Your task to perform on an android device: Go to Google Image 0: 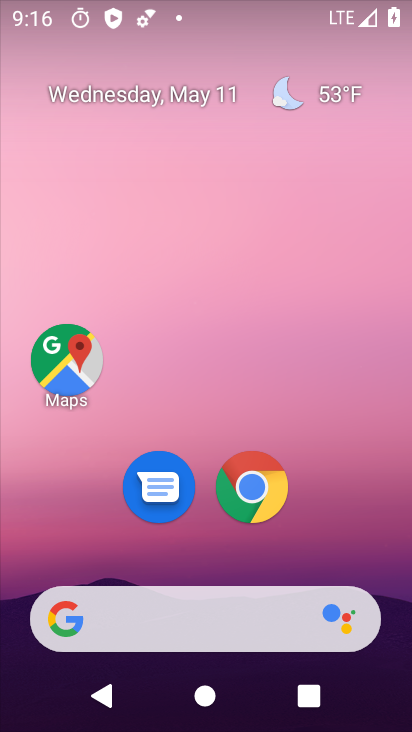
Step 0: drag from (335, 521) to (279, 128)
Your task to perform on an android device: Go to Google Image 1: 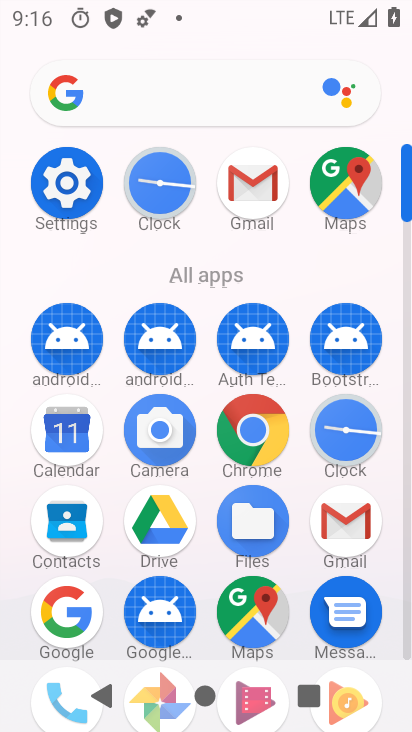
Step 1: click (64, 610)
Your task to perform on an android device: Go to Google Image 2: 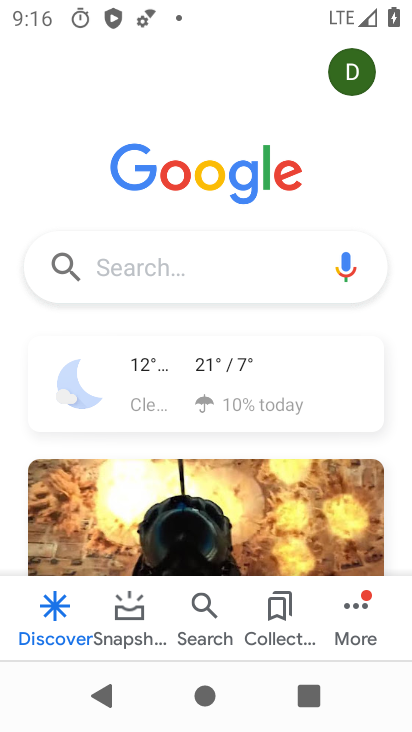
Step 2: task complete